Your task to perform on an android device: change the clock display to digital Image 0: 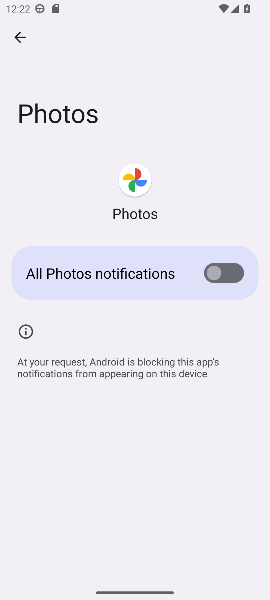
Step 0: press home button
Your task to perform on an android device: change the clock display to digital Image 1: 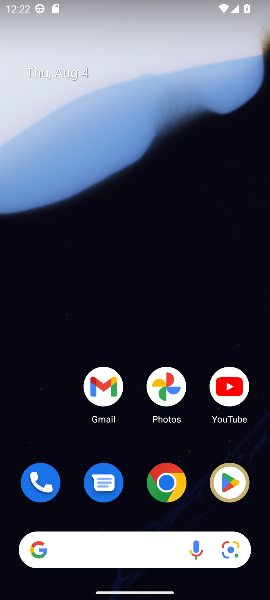
Step 1: drag from (143, 434) to (158, 155)
Your task to perform on an android device: change the clock display to digital Image 2: 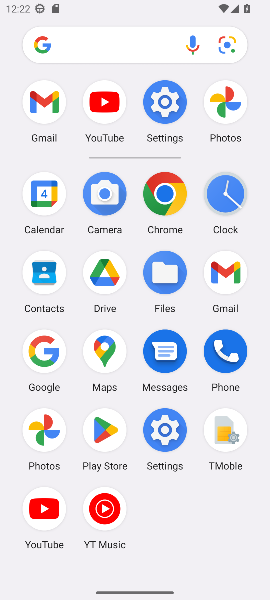
Step 2: click (218, 186)
Your task to perform on an android device: change the clock display to digital Image 3: 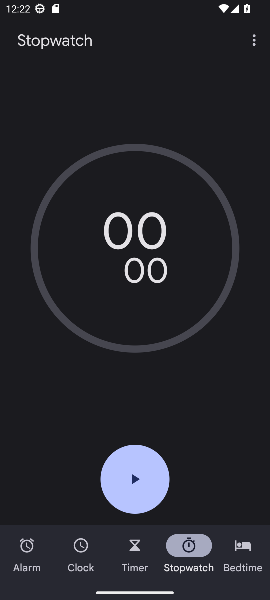
Step 3: click (252, 36)
Your task to perform on an android device: change the clock display to digital Image 4: 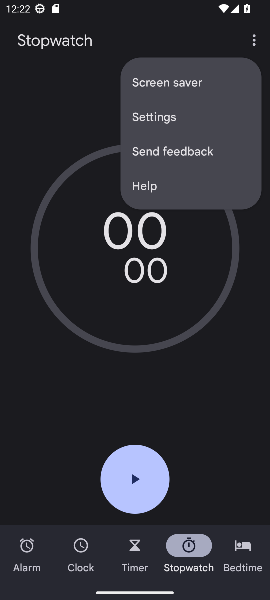
Step 4: click (161, 125)
Your task to perform on an android device: change the clock display to digital Image 5: 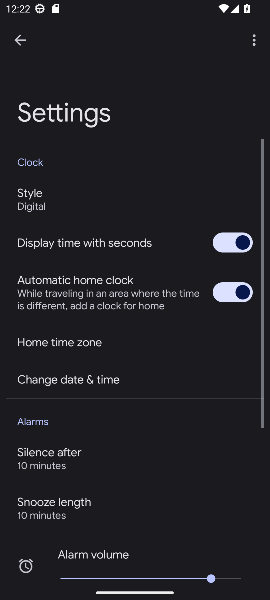
Step 5: click (54, 197)
Your task to perform on an android device: change the clock display to digital Image 6: 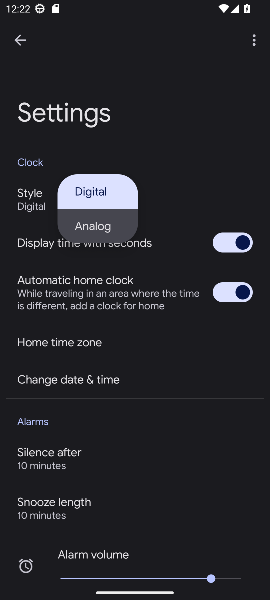
Step 6: task complete